Your task to perform on an android device: Go to Wikipedia Image 0: 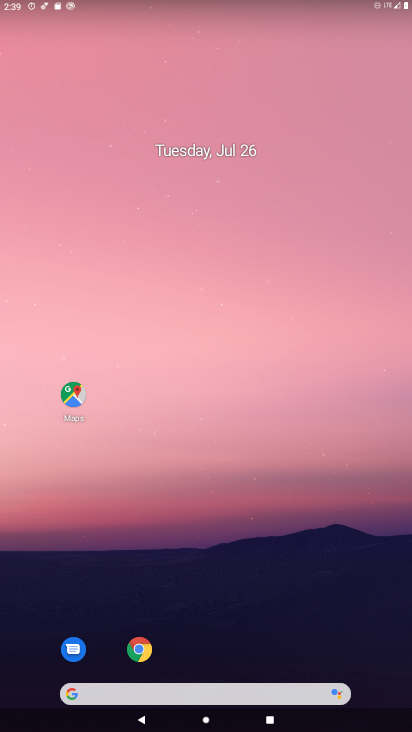
Step 0: drag from (347, 615) to (132, 128)
Your task to perform on an android device: Go to Wikipedia Image 1: 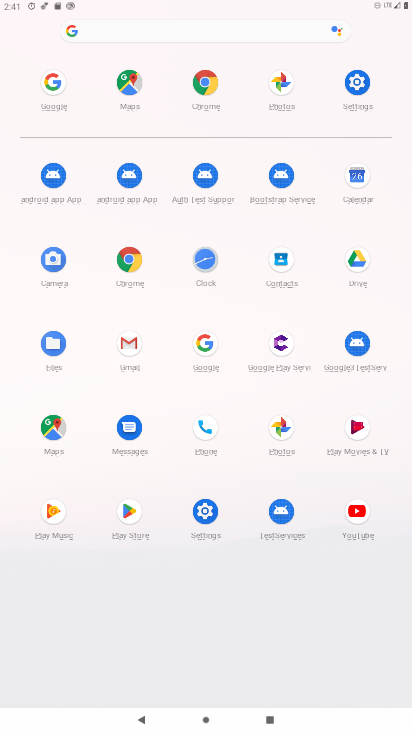
Step 1: click (211, 352)
Your task to perform on an android device: Go to Wikipedia Image 2: 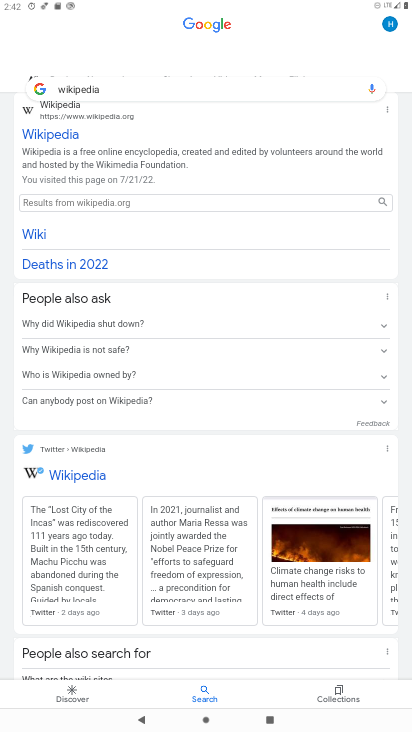
Step 2: task complete